Your task to perform on an android device: turn vacation reply on in the gmail app Image 0: 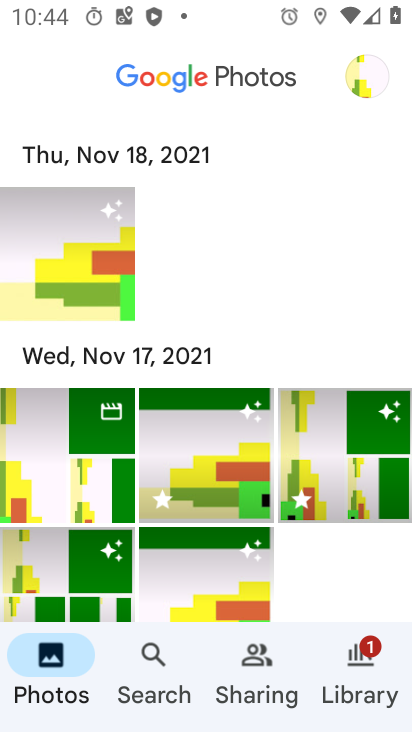
Step 0: press back button
Your task to perform on an android device: turn vacation reply on in the gmail app Image 1: 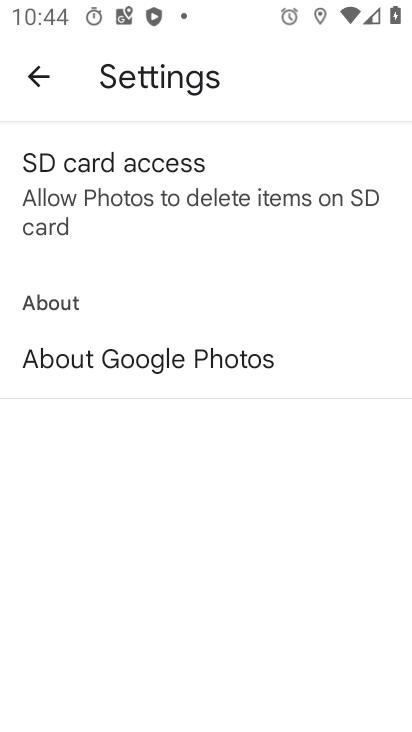
Step 1: click (29, 76)
Your task to perform on an android device: turn vacation reply on in the gmail app Image 2: 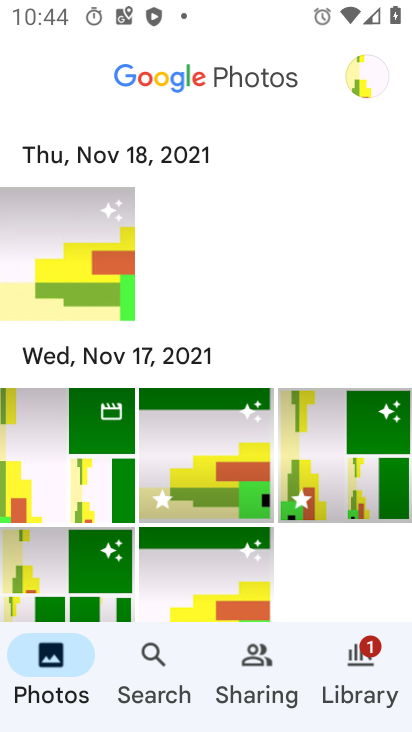
Step 2: press home button
Your task to perform on an android device: turn vacation reply on in the gmail app Image 3: 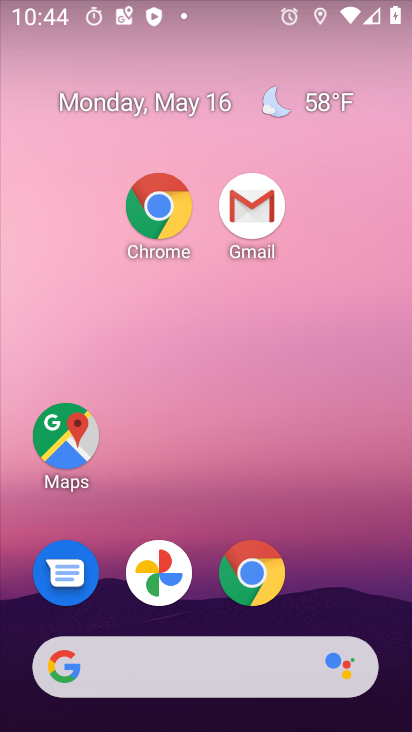
Step 3: drag from (283, 456) to (114, 178)
Your task to perform on an android device: turn vacation reply on in the gmail app Image 4: 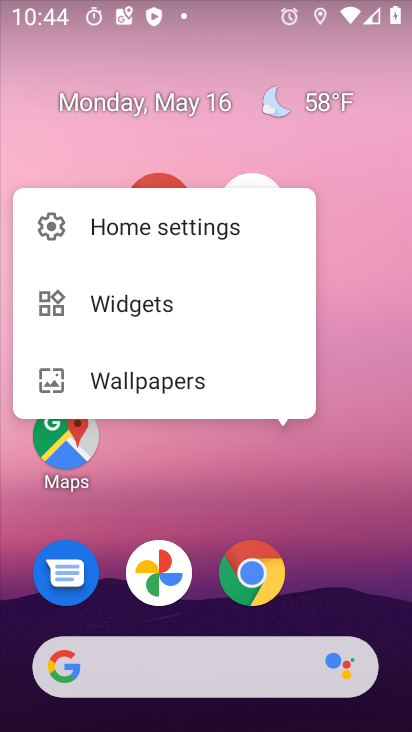
Step 4: drag from (273, 458) to (114, 83)
Your task to perform on an android device: turn vacation reply on in the gmail app Image 5: 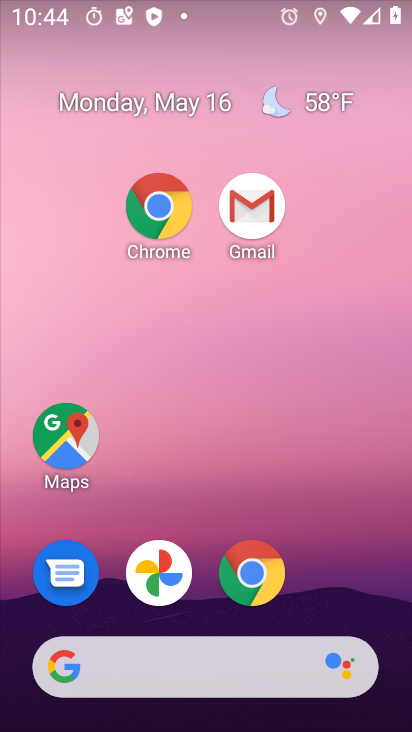
Step 5: drag from (309, 502) to (135, 75)
Your task to perform on an android device: turn vacation reply on in the gmail app Image 6: 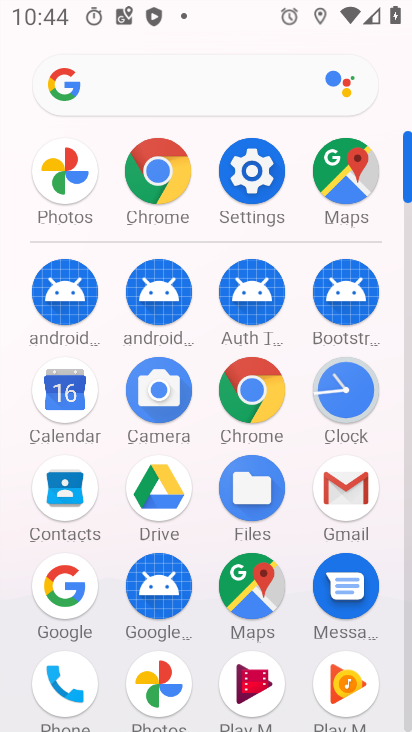
Step 6: drag from (372, 541) to (83, 38)
Your task to perform on an android device: turn vacation reply on in the gmail app Image 7: 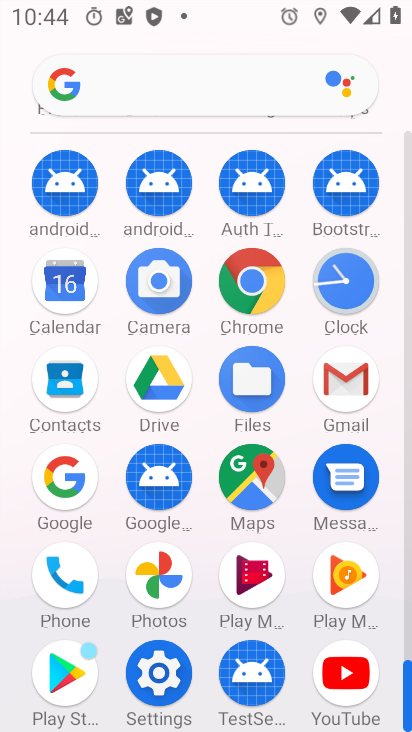
Step 7: click (339, 374)
Your task to perform on an android device: turn vacation reply on in the gmail app Image 8: 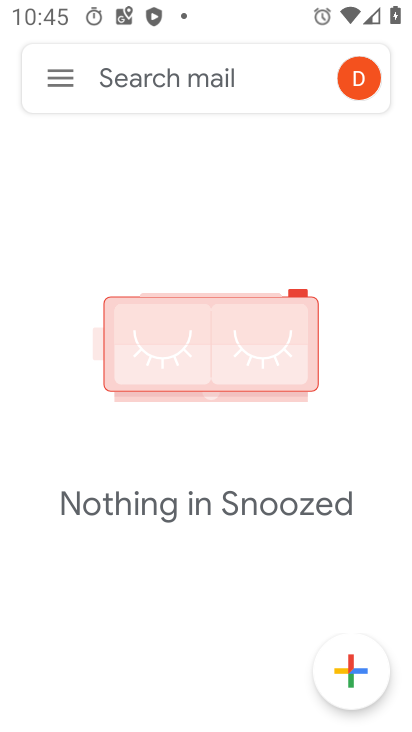
Step 8: press back button
Your task to perform on an android device: turn vacation reply on in the gmail app Image 9: 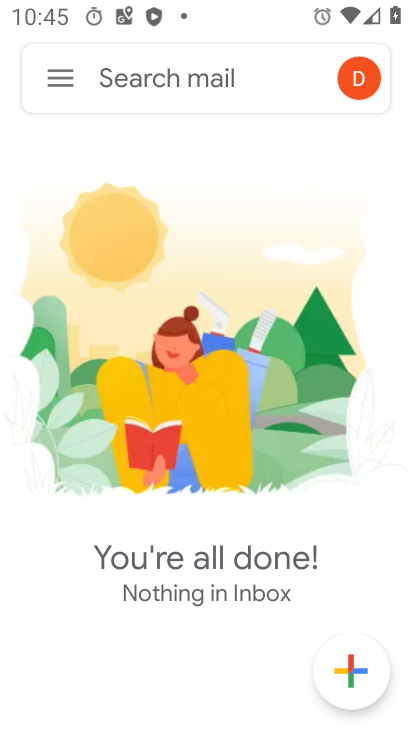
Step 9: click (60, 91)
Your task to perform on an android device: turn vacation reply on in the gmail app Image 10: 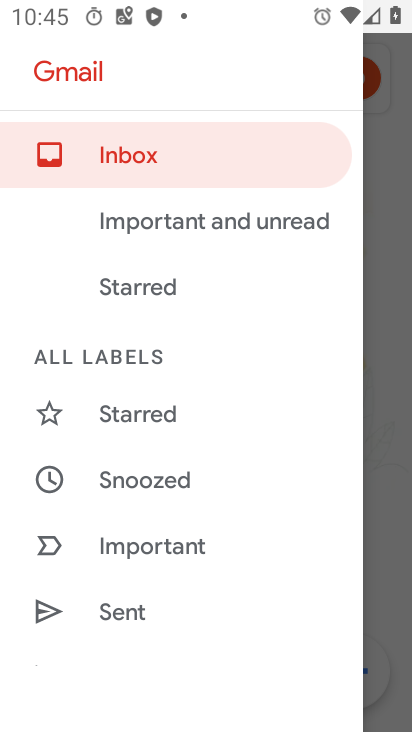
Step 10: drag from (166, 565) to (129, 224)
Your task to perform on an android device: turn vacation reply on in the gmail app Image 11: 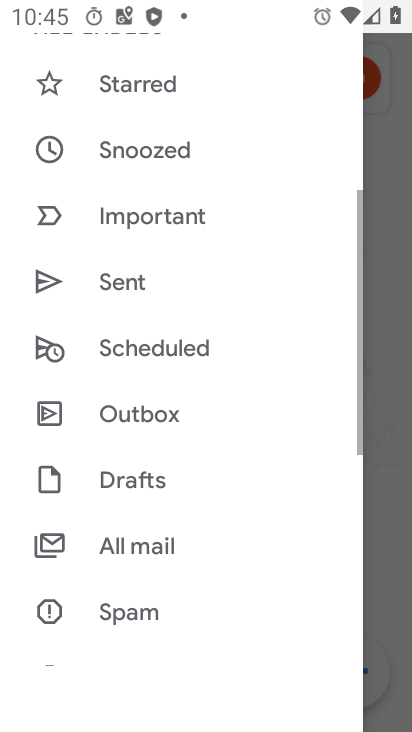
Step 11: drag from (155, 462) to (114, 133)
Your task to perform on an android device: turn vacation reply on in the gmail app Image 12: 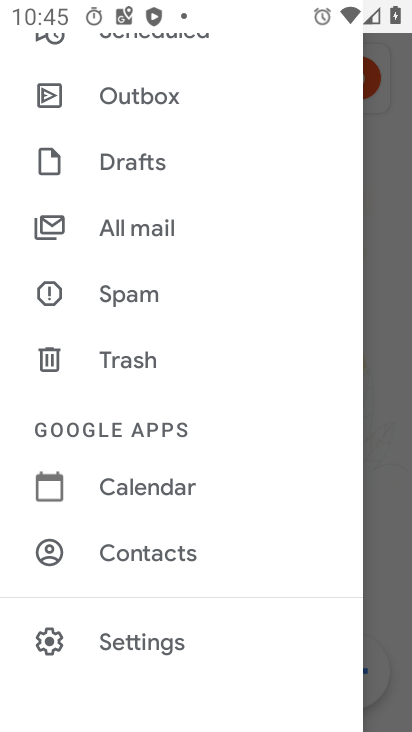
Step 12: click (126, 638)
Your task to perform on an android device: turn vacation reply on in the gmail app Image 13: 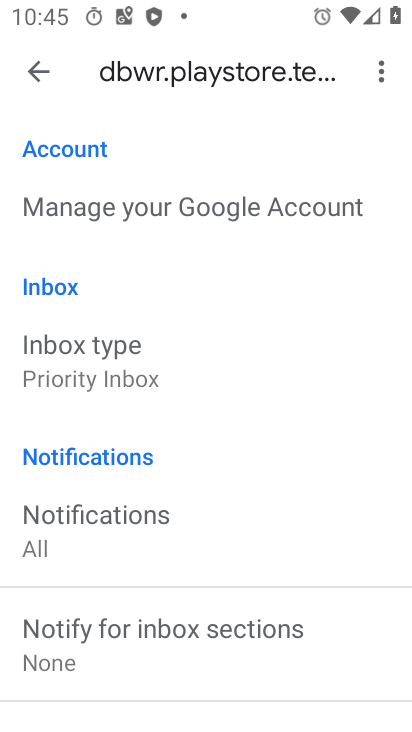
Step 13: drag from (151, 588) to (108, 327)
Your task to perform on an android device: turn vacation reply on in the gmail app Image 14: 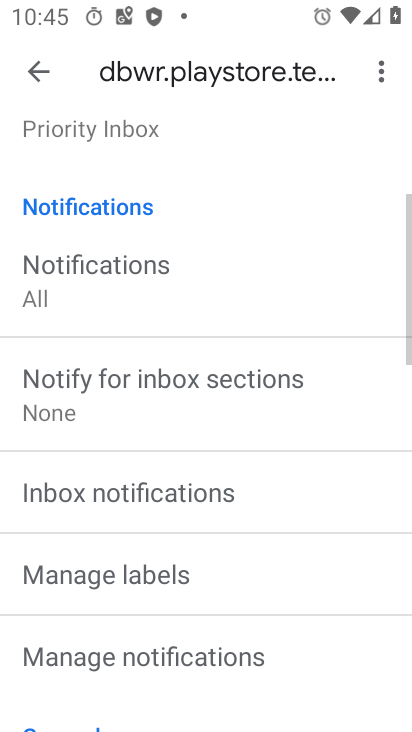
Step 14: drag from (273, 605) to (167, 258)
Your task to perform on an android device: turn vacation reply on in the gmail app Image 15: 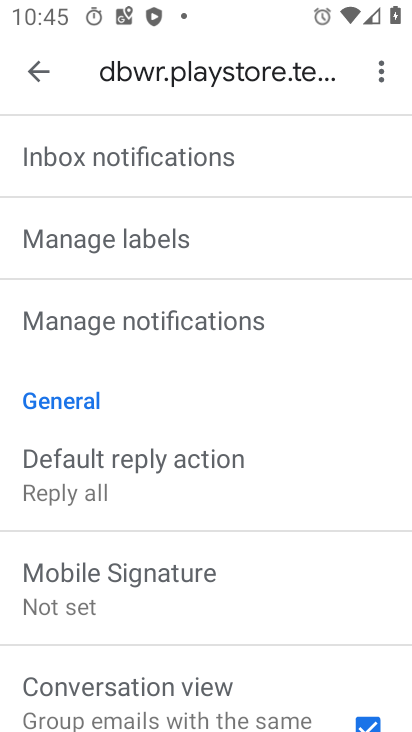
Step 15: drag from (48, 276) to (153, 555)
Your task to perform on an android device: turn vacation reply on in the gmail app Image 16: 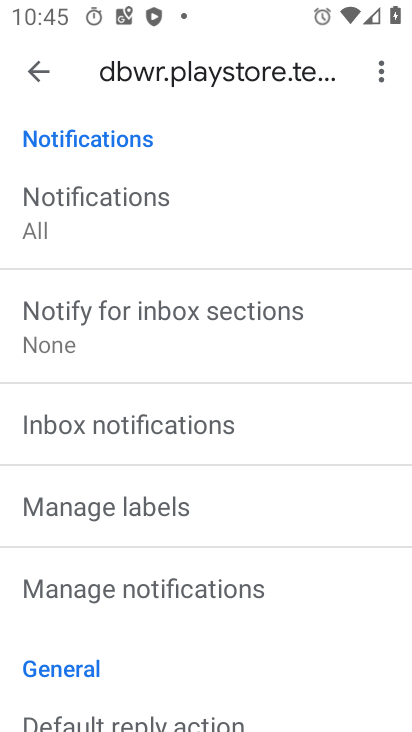
Step 16: drag from (146, 503) to (94, 325)
Your task to perform on an android device: turn vacation reply on in the gmail app Image 17: 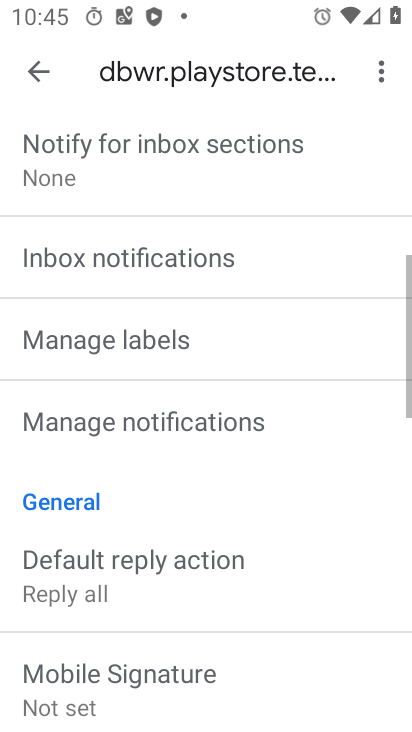
Step 17: drag from (197, 537) to (75, 243)
Your task to perform on an android device: turn vacation reply on in the gmail app Image 18: 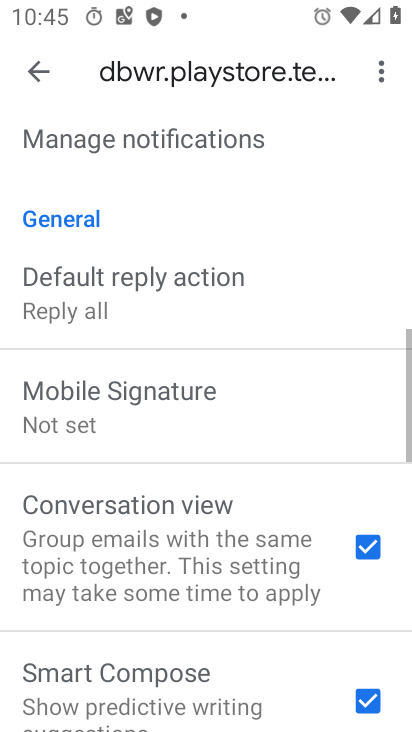
Step 18: drag from (182, 491) to (116, 265)
Your task to perform on an android device: turn vacation reply on in the gmail app Image 19: 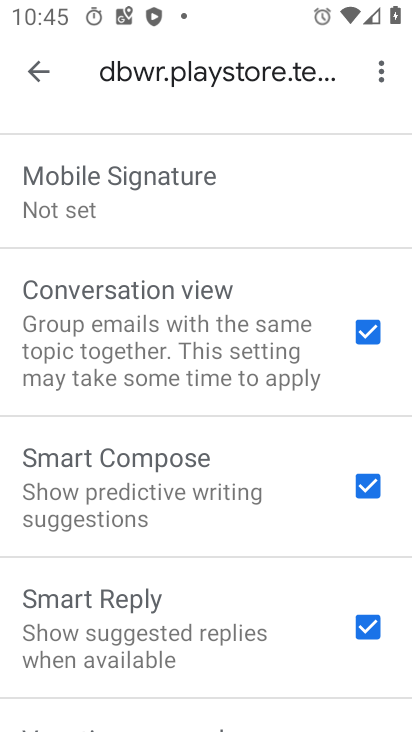
Step 19: drag from (158, 559) to (117, 392)
Your task to perform on an android device: turn vacation reply on in the gmail app Image 20: 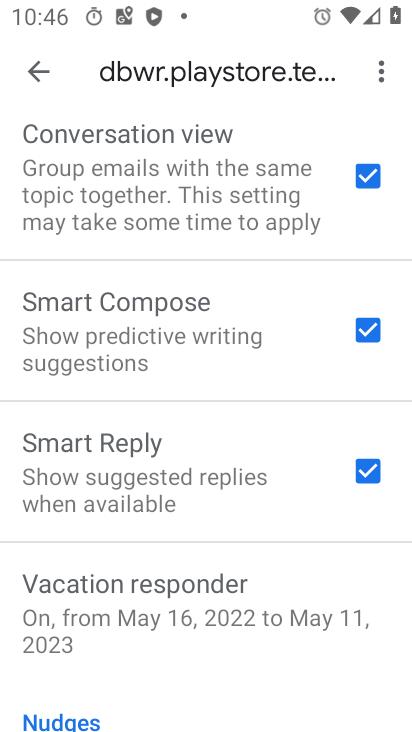
Step 20: drag from (185, 486) to (157, 405)
Your task to perform on an android device: turn vacation reply on in the gmail app Image 21: 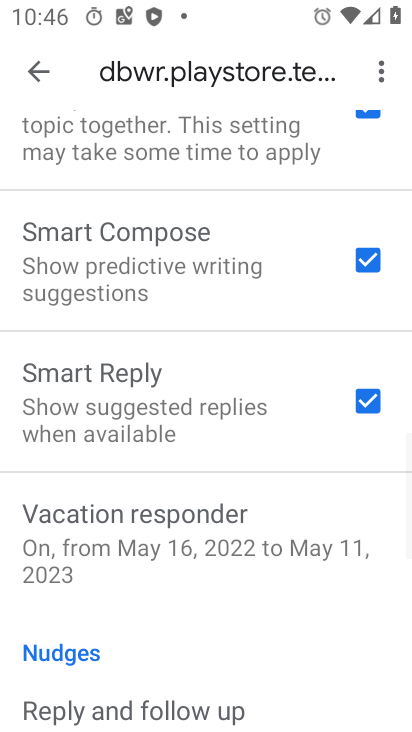
Step 21: drag from (179, 589) to (95, 322)
Your task to perform on an android device: turn vacation reply on in the gmail app Image 22: 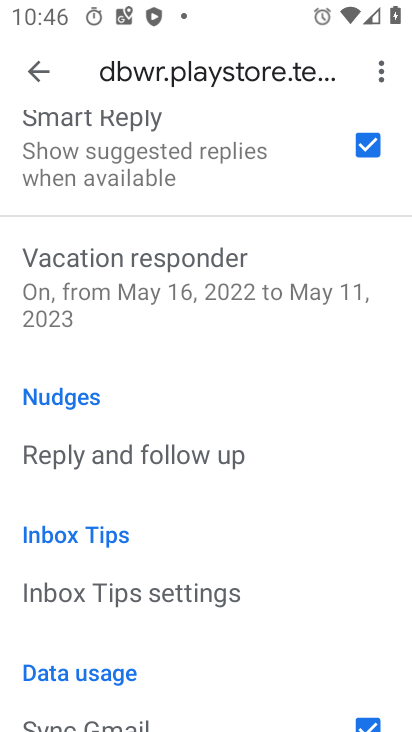
Step 22: click (217, 258)
Your task to perform on an android device: turn vacation reply on in the gmail app Image 23: 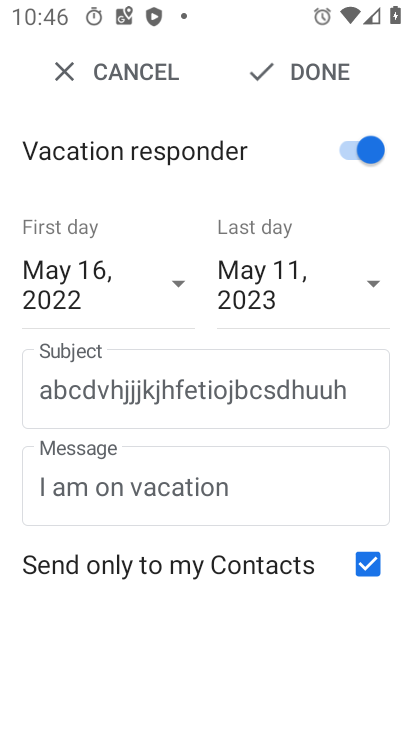
Step 23: click (363, 153)
Your task to perform on an android device: turn vacation reply on in the gmail app Image 24: 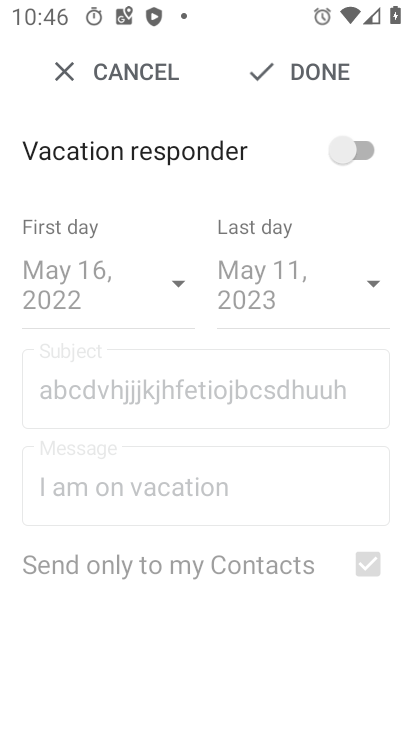
Step 24: click (350, 153)
Your task to perform on an android device: turn vacation reply on in the gmail app Image 25: 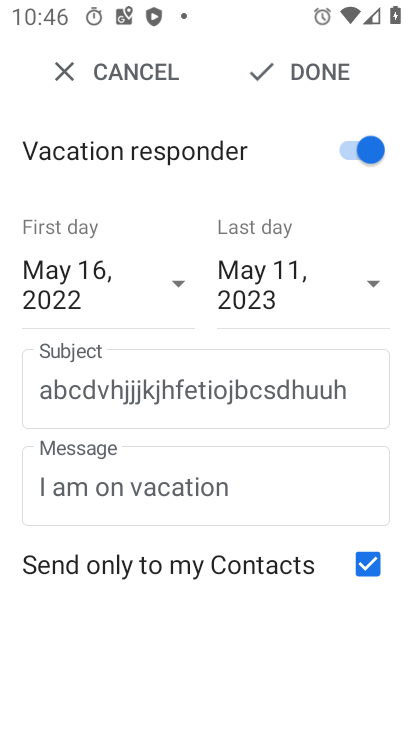
Step 25: task complete